Your task to perform on an android device: toggle show notifications on the lock screen Image 0: 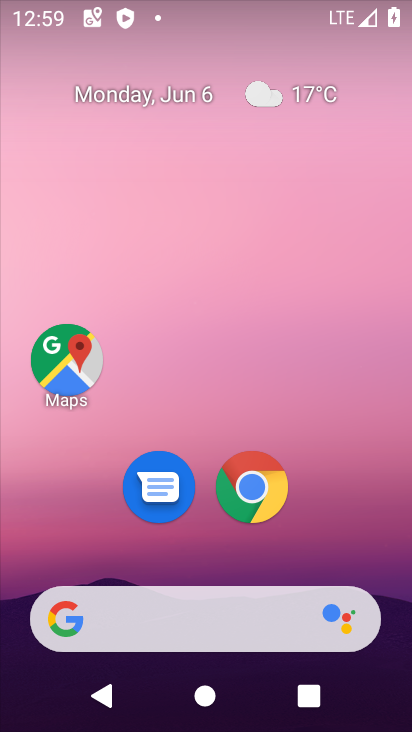
Step 0: drag from (176, 445) to (205, 35)
Your task to perform on an android device: toggle show notifications on the lock screen Image 1: 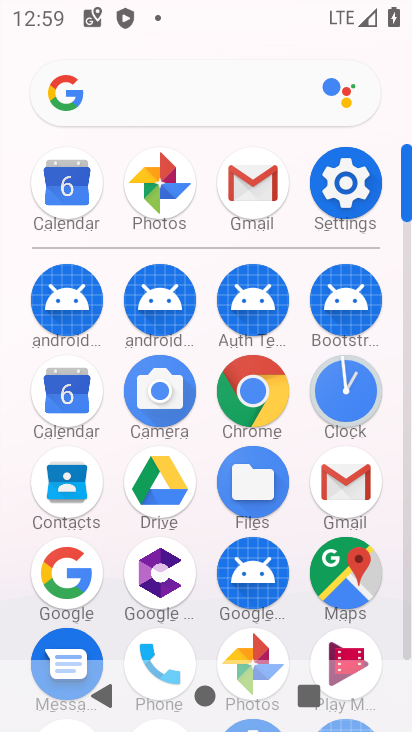
Step 1: click (342, 177)
Your task to perform on an android device: toggle show notifications on the lock screen Image 2: 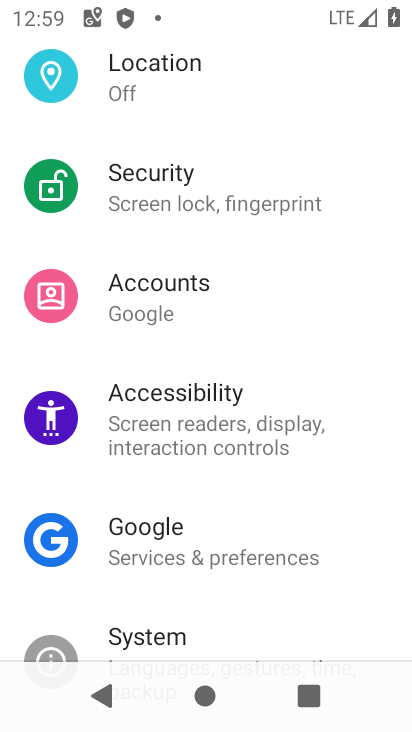
Step 2: drag from (316, 193) to (213, 701)
Your task to perform on an android device: toggle show notifications on the lock screen Image 3: 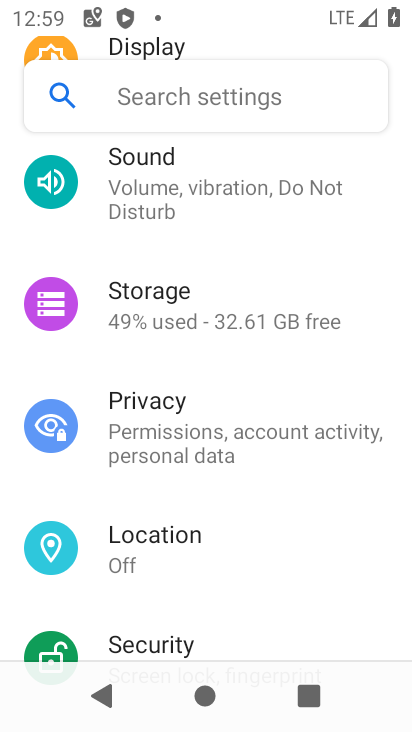
Step 3: drag from (245, 229) to (180, 633)
Your task to perform on an android device: toggle show notifications on the lock screen Image 4: 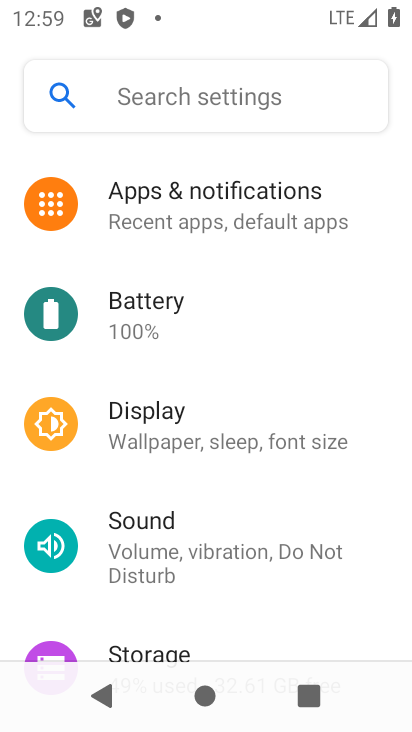
Step 4: click (217, 206)
Your task to perform on an android device: toggle show notifications on the lock screen Image 5: 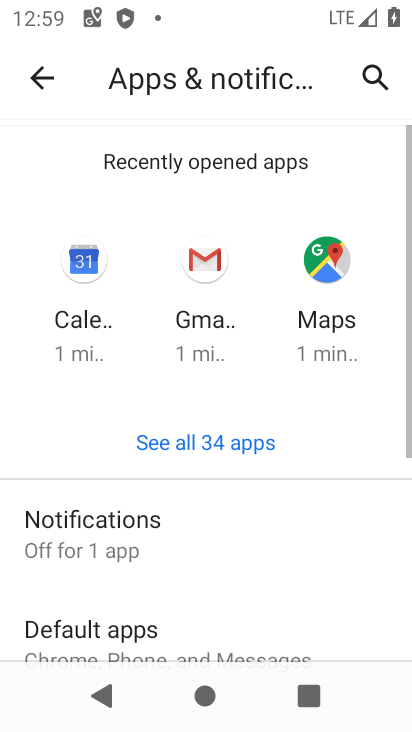
Step 5: drag from (123, 581) to (250, 171)
Your task to perform on an android device: toggle show notifications on the lock screen Image 6: 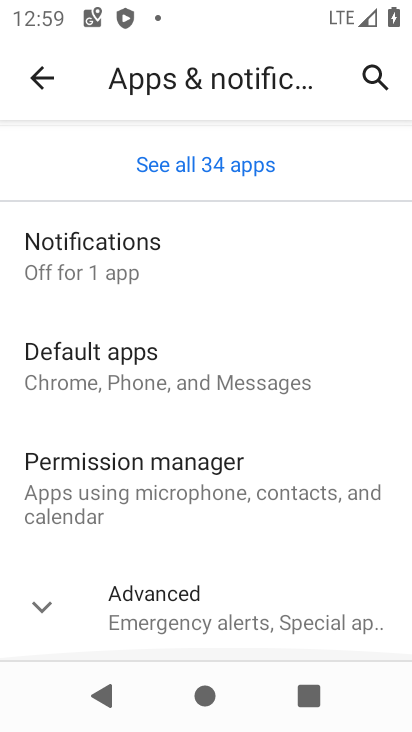
Step 6: click (143, 240)
Your task to perform on an android device: toggle show notifications on the lock screen Image 7: 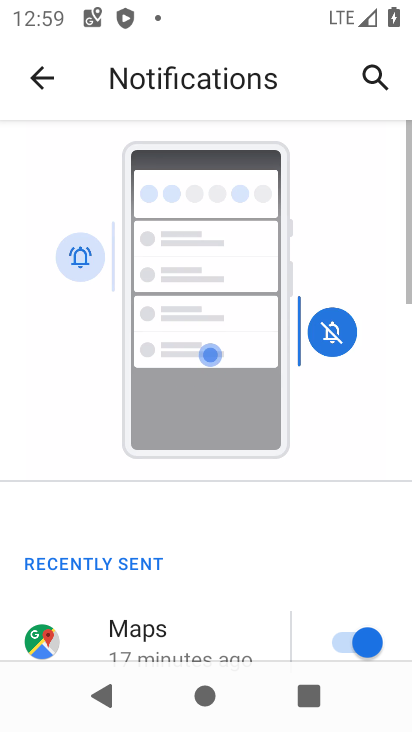
Step 7: drag from (209, 635) to (278, 5)
Your task to perform on an android device: toggle show notifications on the lock screen Image 8: 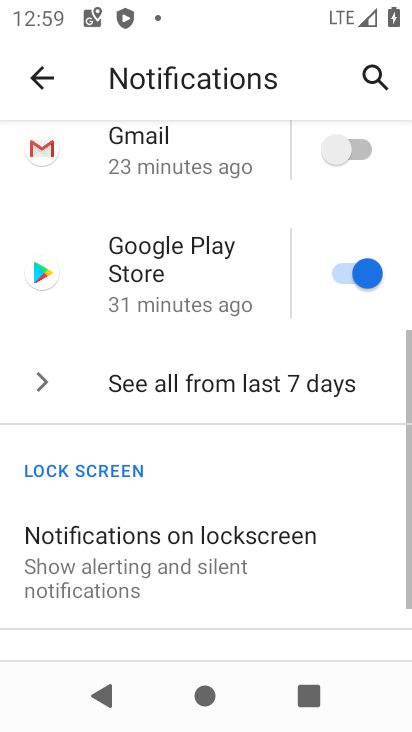
Step 8: drag from (206, 518) to (253, 164)
Your task to perform on an android device: toggle show notifications on the lock screen Image 9: 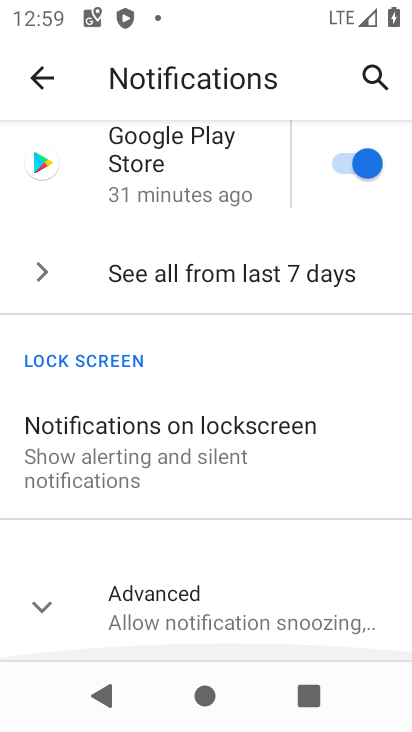
Step 9: click (84, 424)
Your task to perform on an android device: toggle show notifications on the lock screen Image 10: 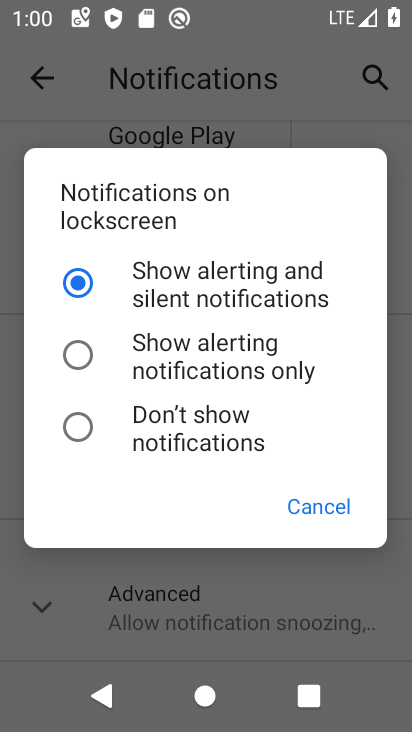
Step 10: task complete